Your task to perform on an android device: check battery use Image 0: 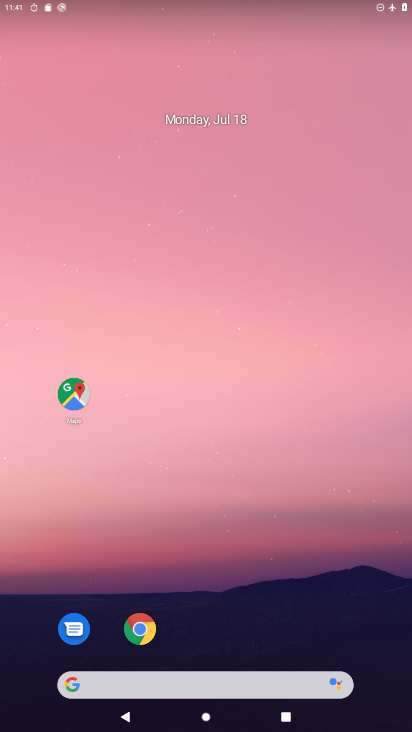
Step 0: drag from (269, 525) to (238, 86)
Your task to perform on an android device: check battery use Image 1: 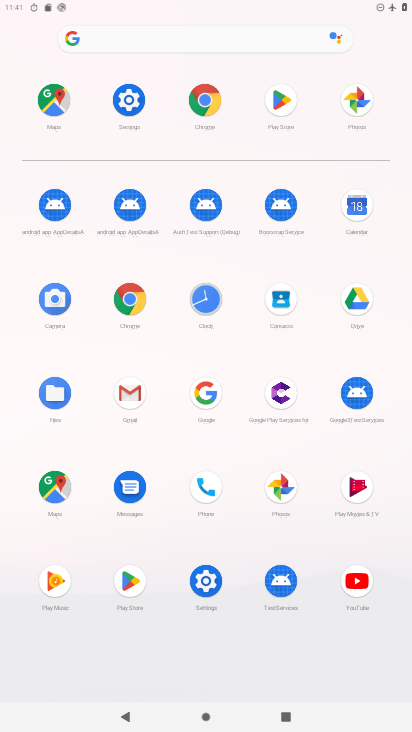
Step 1: click (134, 104)
Your task to perform on an android device: check battery use Image 2: 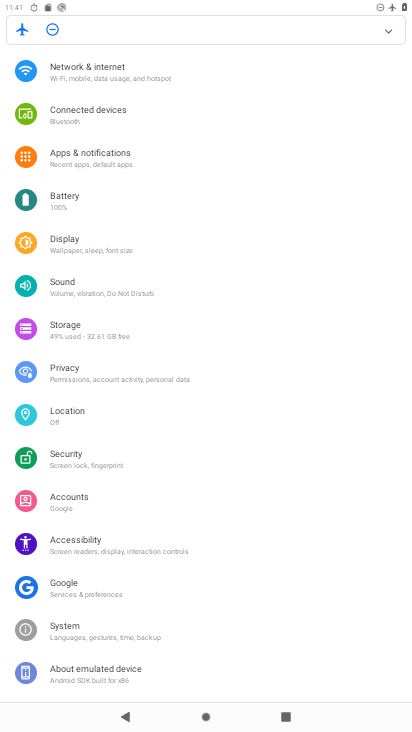
Step 2: click (78, 200)
Your task to perform on an android device: check battery use Image 3: 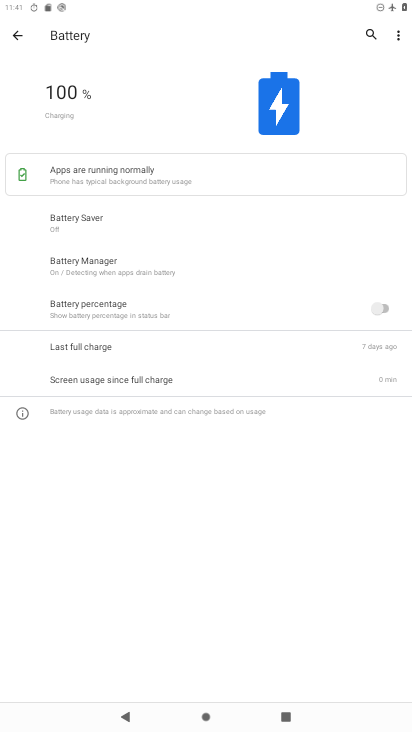
Step 3: click (400, 32)
Your task to perform on an android device: check battery use Image 4: 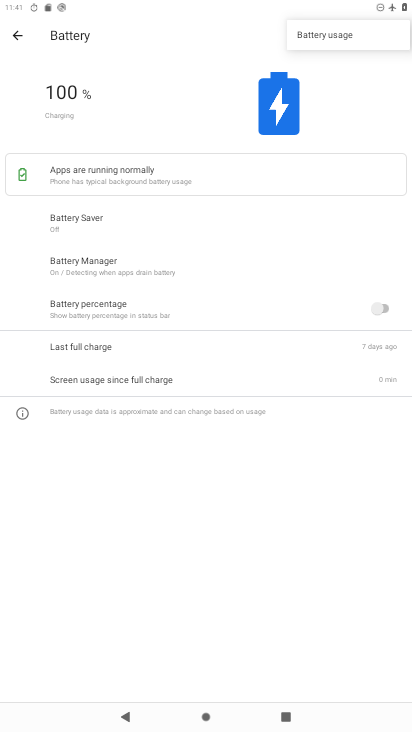
Step 4: click (358, 34)
Your task to perform on an android device: check battery use Image 5: 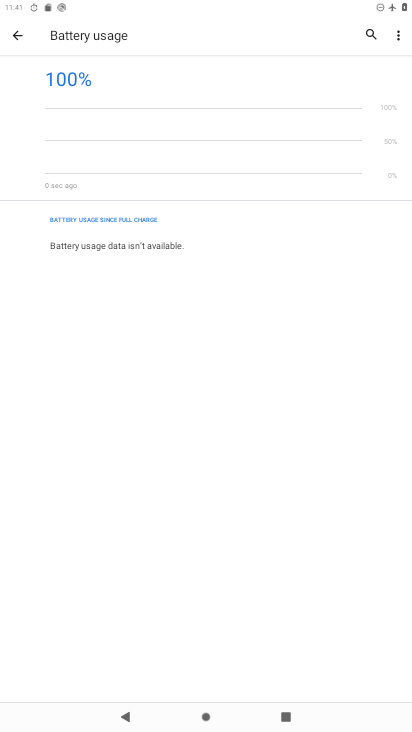
Step 5: task complete